Your task to perform on an android device: turn notification dots off Image 0: 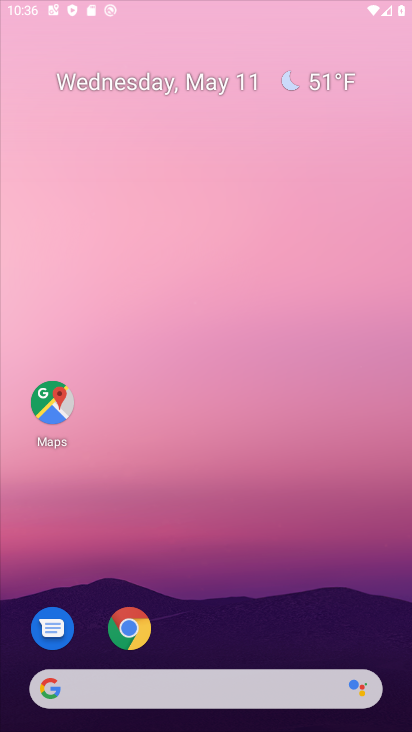
Step 0: drag from (124, 280) to (358, 255)
Your task to perform on an android device: turn notification dots off Image 1: 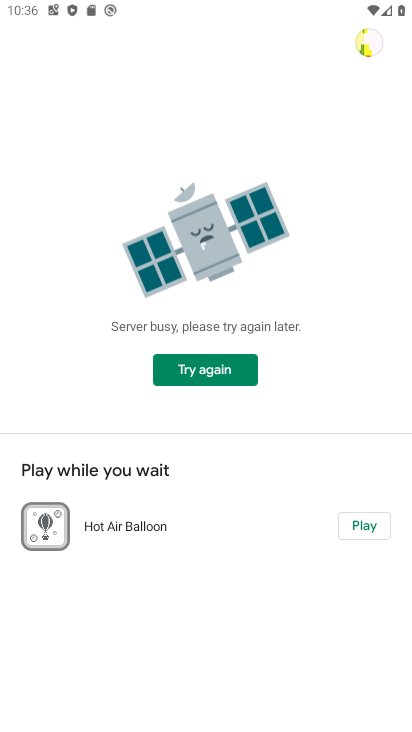
Step 1: press home button
Your task to perform on an android device: turn notification dots off Image 2: 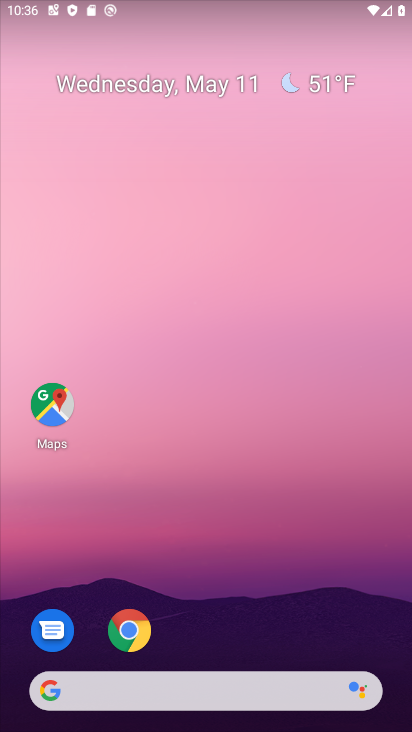
Step 2: drag from (227, 724) to (208, 212)
Your task to perform on an android device: turn notification dots off Image 3: 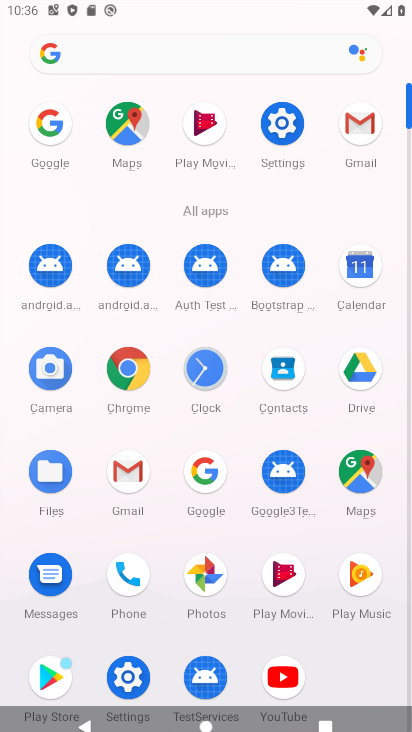
Step 3: click (283, 122)
Your task to perform on an android device: turn notification dots off Image 4: 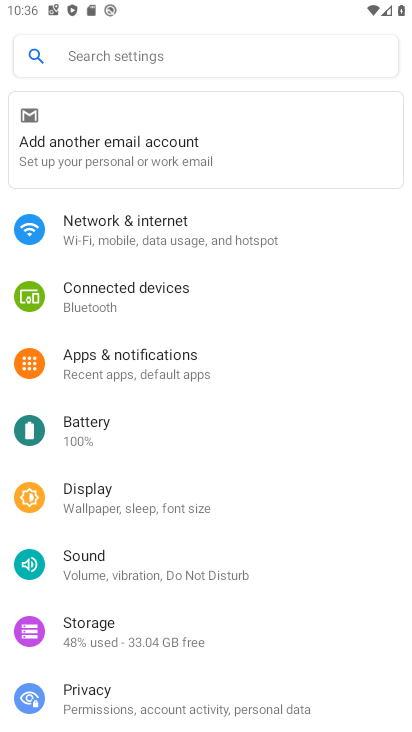
Step 4: click (157, 376)
Your task to perform on an android device: turn notification dots off Image 5: 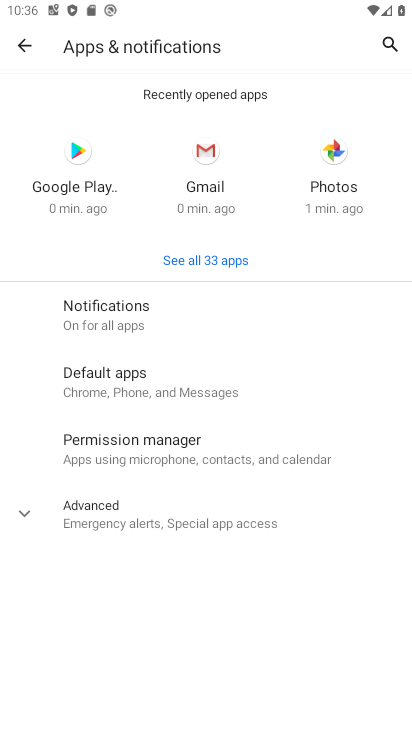
Step 5: click (118, 330)
Your task to perform on an android device: turn notification dots off Image 6: 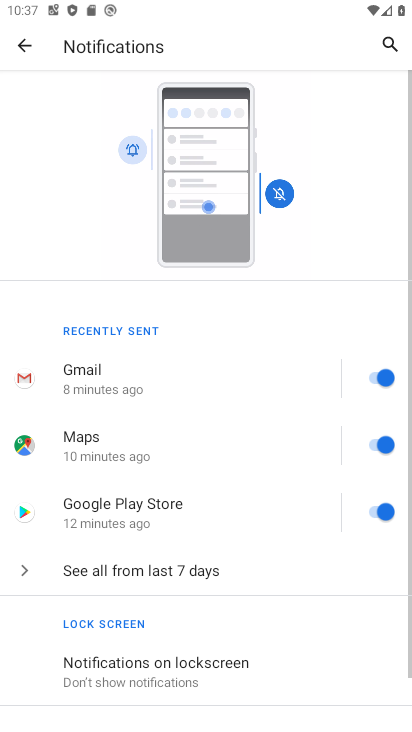
Step 6: drag from (235, 638) to (201, 298)
Your task to perform on an android device: turn notification dots off Image 7: 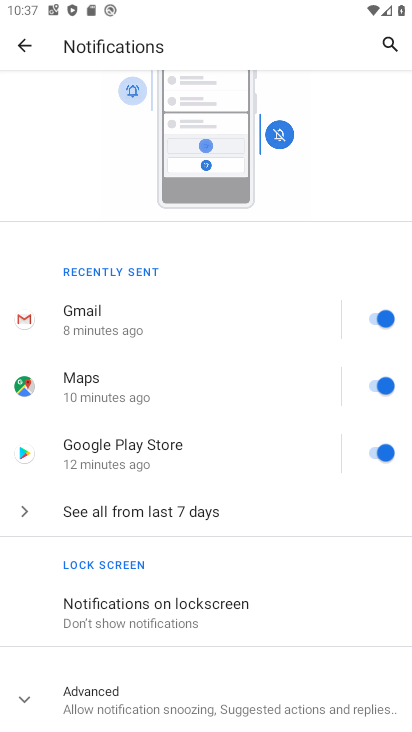
Step 7: click (141, 708)
Your task to perform on an android device: turn notification dots off Image 8: 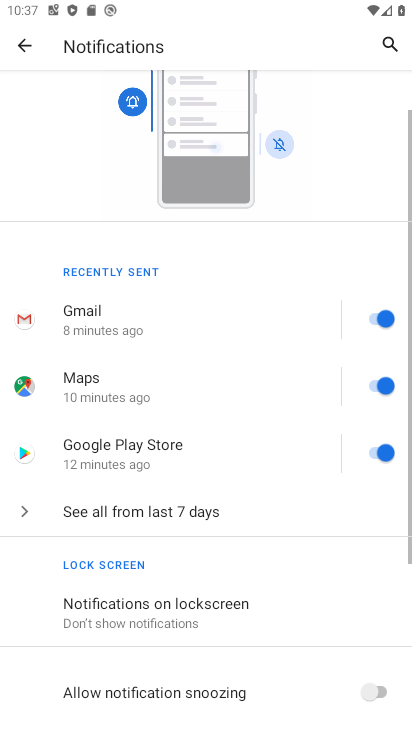
Step 8: drag from (249, 665) to (219, 451)
Your task to perform on an android device: turn notification dots off Image 9: 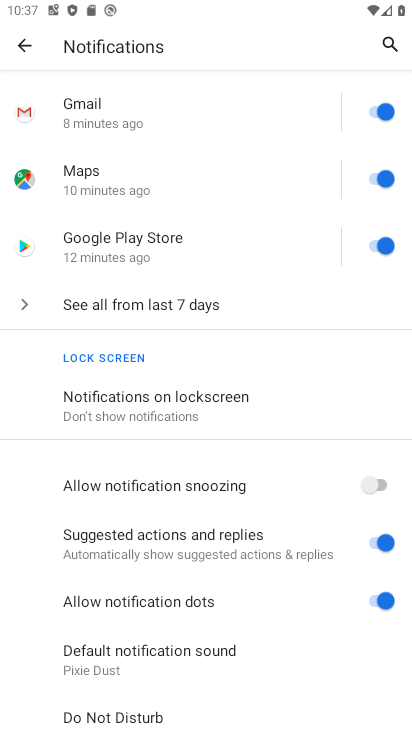
Step 9: click (374, 601)
Your task to perform on an android device: turn notification dots off Image 10: 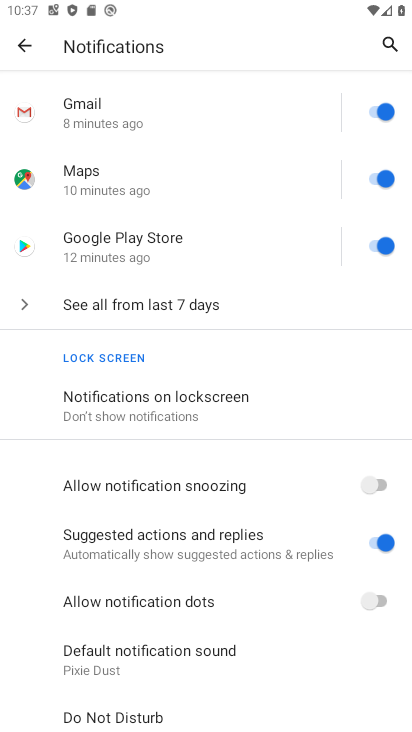
Step 10: task complete